Your task to perform on an android device: Set the phone to "Do not disturb". Image 0: 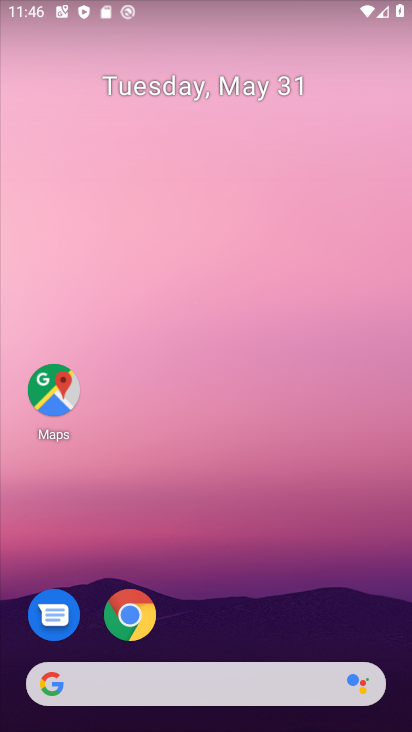
Step 0: drag from (244, 625) to (174, 263)
Your task to perform on an android device: Set the phone to "Do not disturb". Image 1: 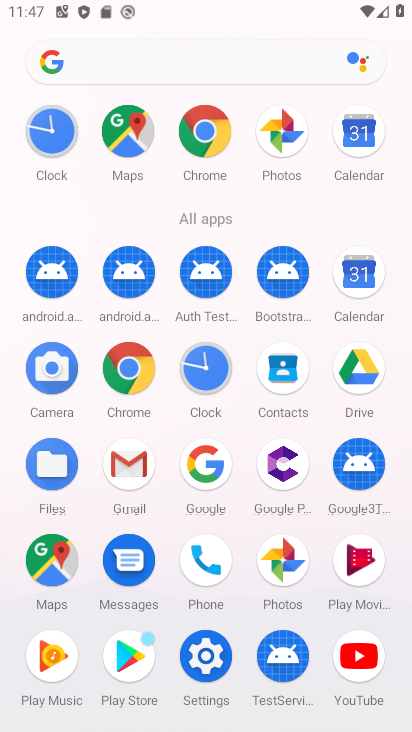
Step 1: task complete